Your task to perform on an android device: Go to eBay Image 0: 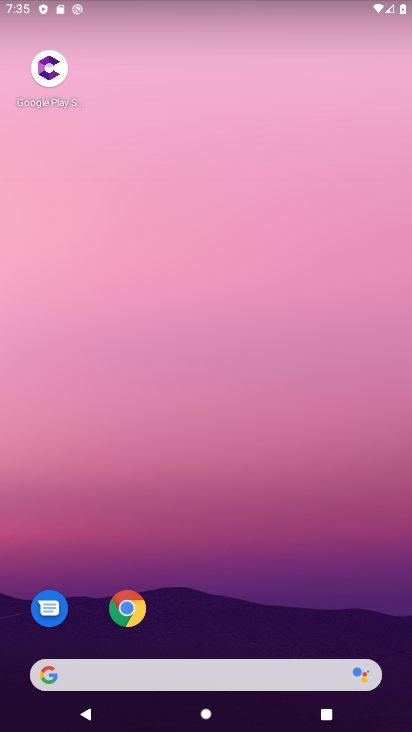
Step 0: drag from (227, 650) to (223, 107)
Your task to perform on an android device: Go to eBay Image 1: 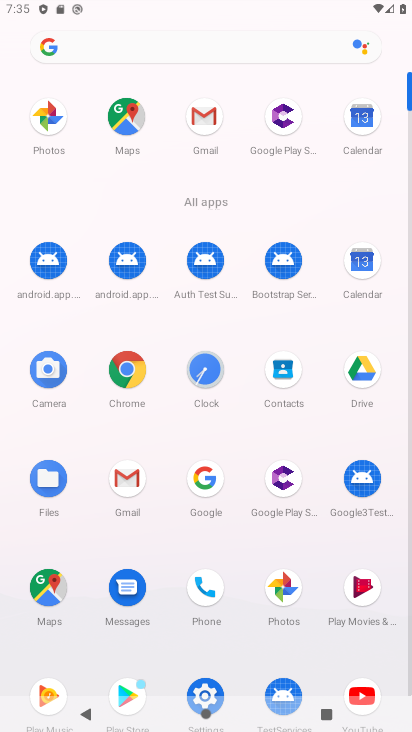
Step 1: click (125, 372)
Your task to perform on an android device: Go to eBay Image 2: 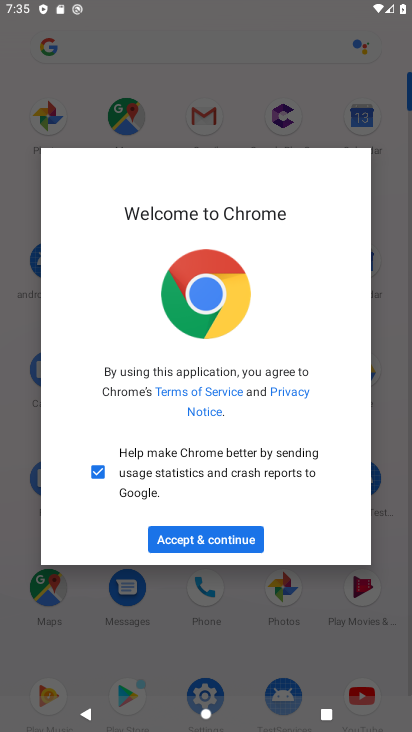
Step 2: click (253, 545)
Your task to perform on an android device: Go to eBay Image 3: 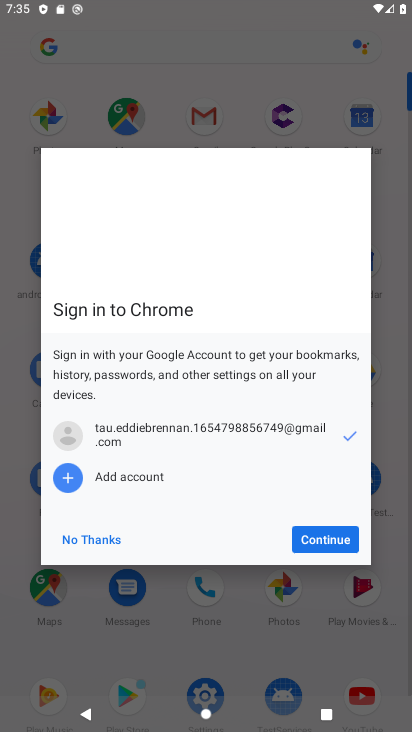
Step 3: click (325, 535)
Your task to perform on an android device: Go to eBay Image 4: 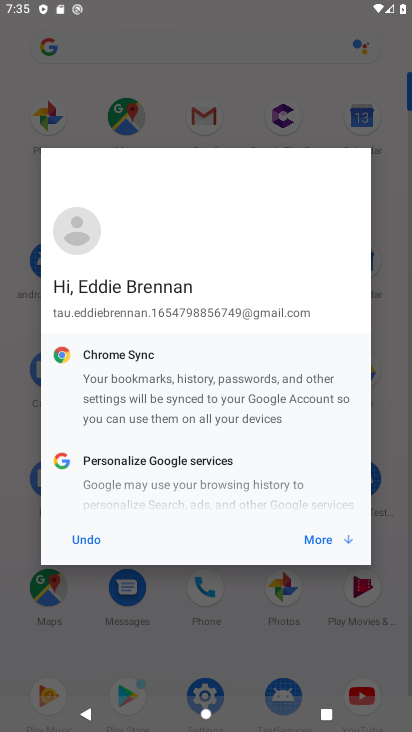
Step 4: click (325, 536)
Your task to perform on an android device: Go to eBay Image 5: 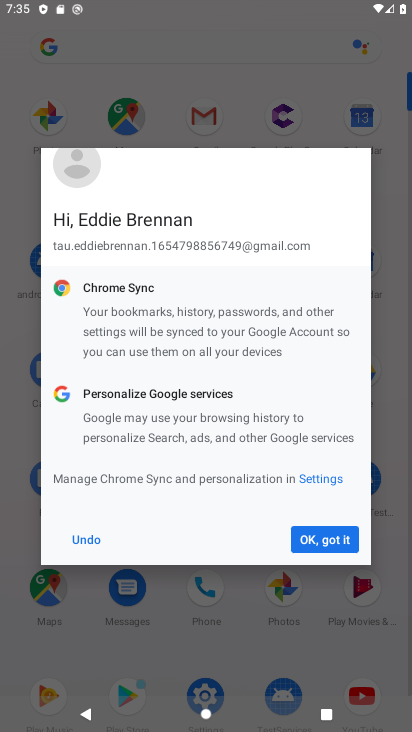
Step 5: click (330, 537)
Your task to perform on an android device: Go to eBay Image 6: 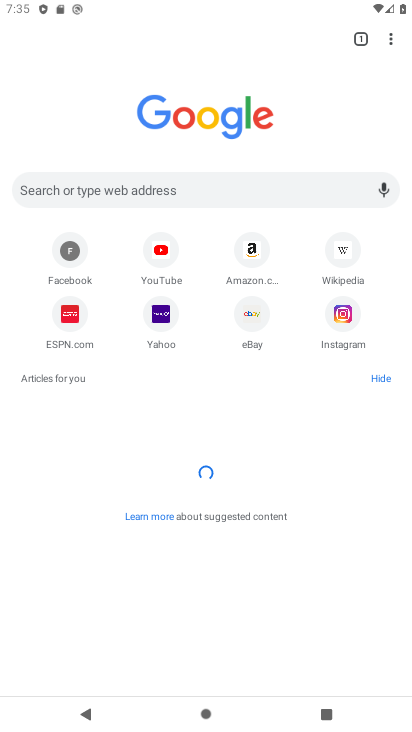
Step 6: click (242, 313)
Your task to perform on an android device: Go to eBay Image 7: 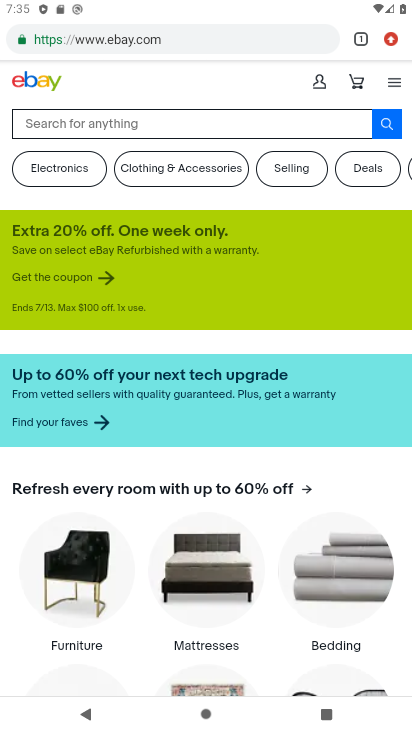
Step 7: task complete